Your task to perform on an android device: Play the latest video from the Wall Street Journal Image 0: 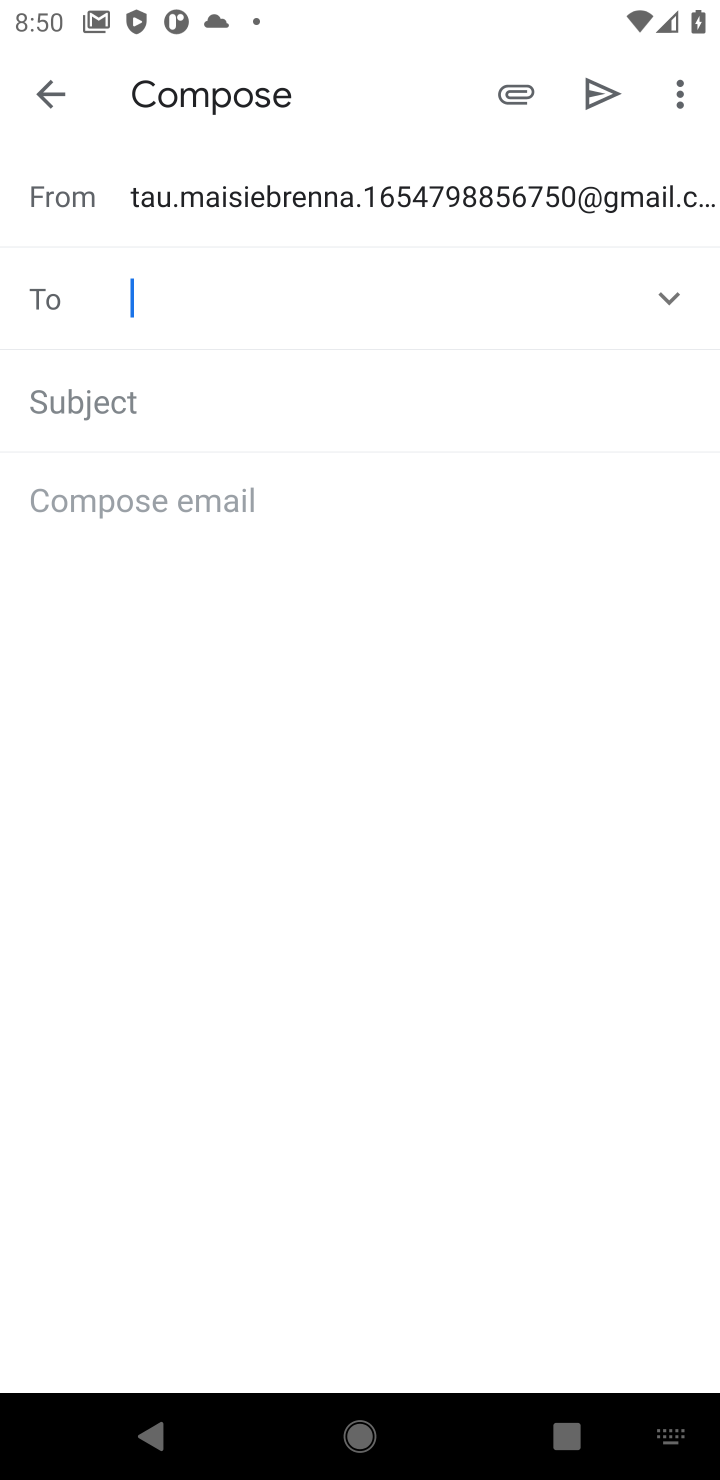
Step 0: press home button
Your task to perform on an android device: Play the latest video from the Wall Street Journal Image 1: 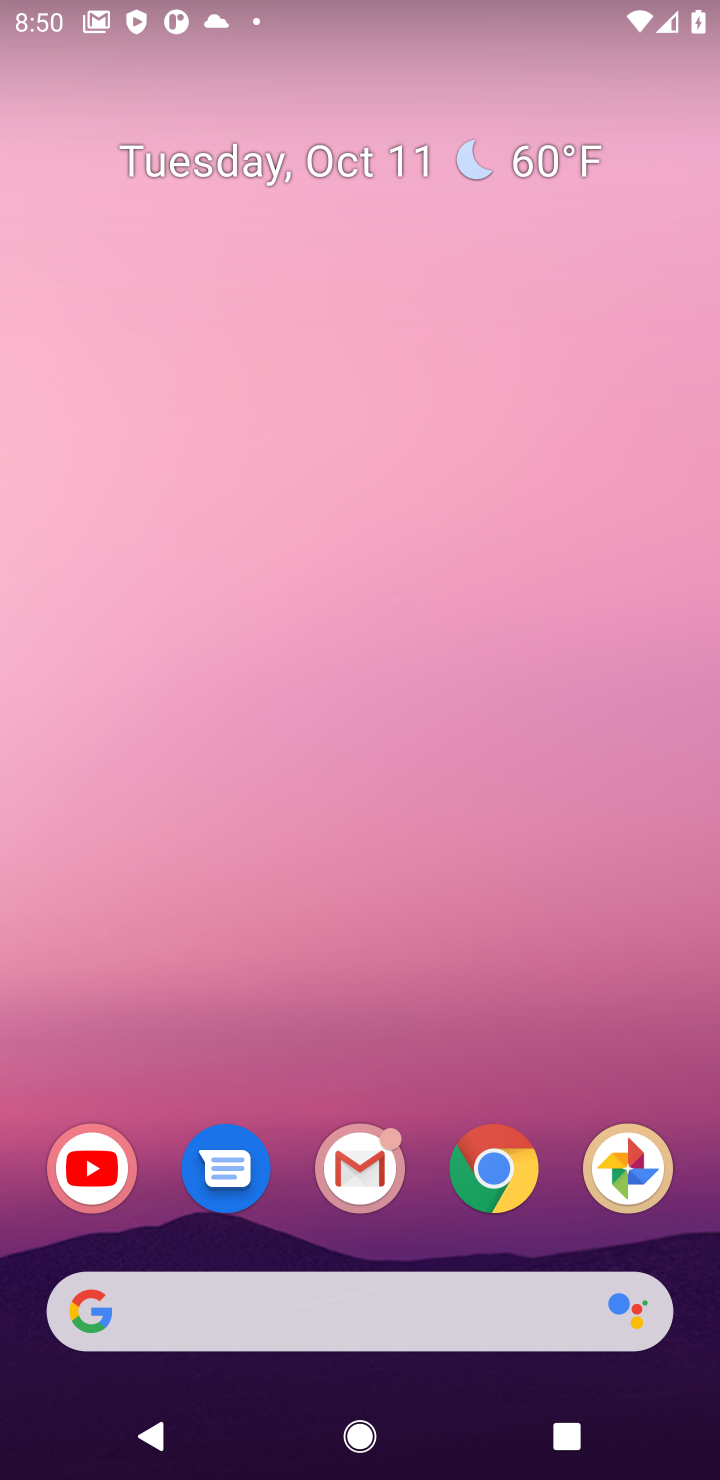
Step 1: click (492, 1174)
Your task to perform on an android device: Play the latest video from the Wall Street Journal Image 2: 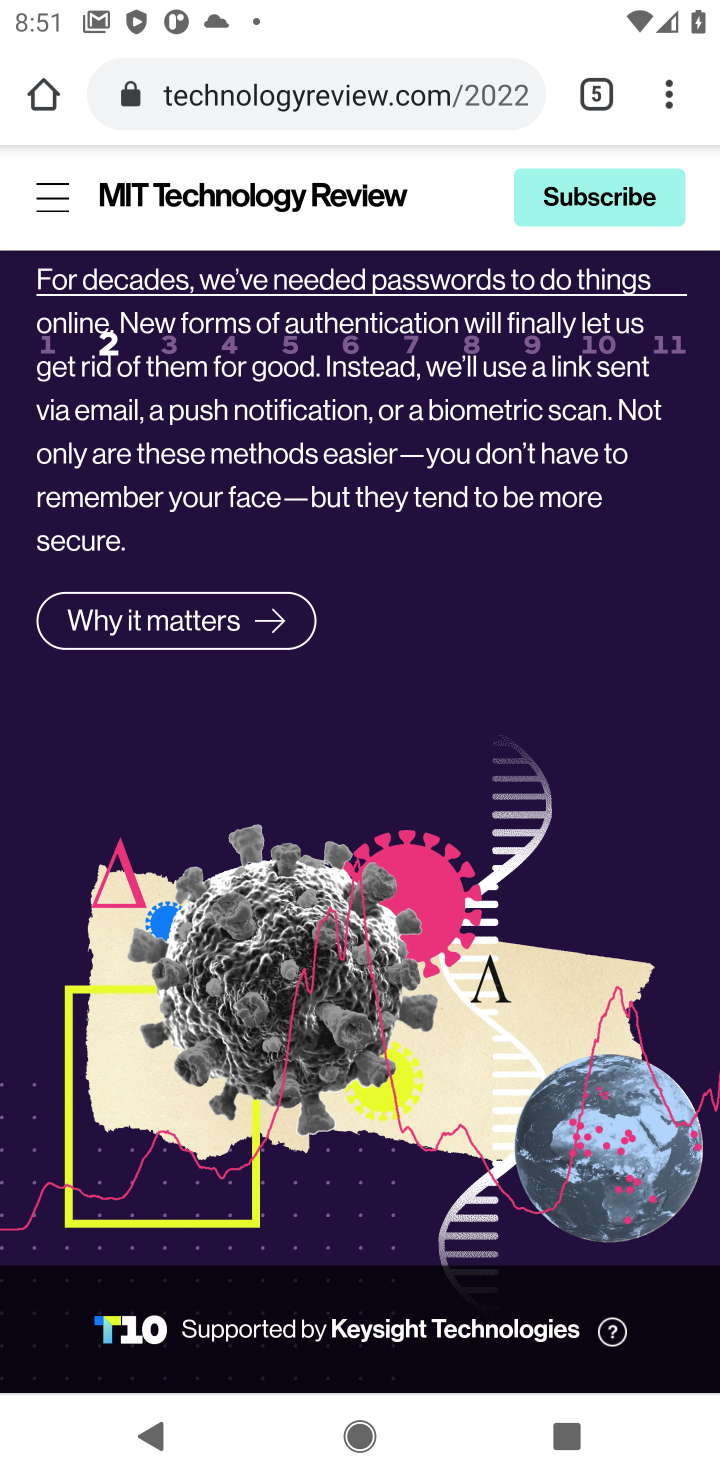
Step 2: click (467, 96)
Your task to perform on an android device: Play the latest video from the Wall Street Journal Image 3: 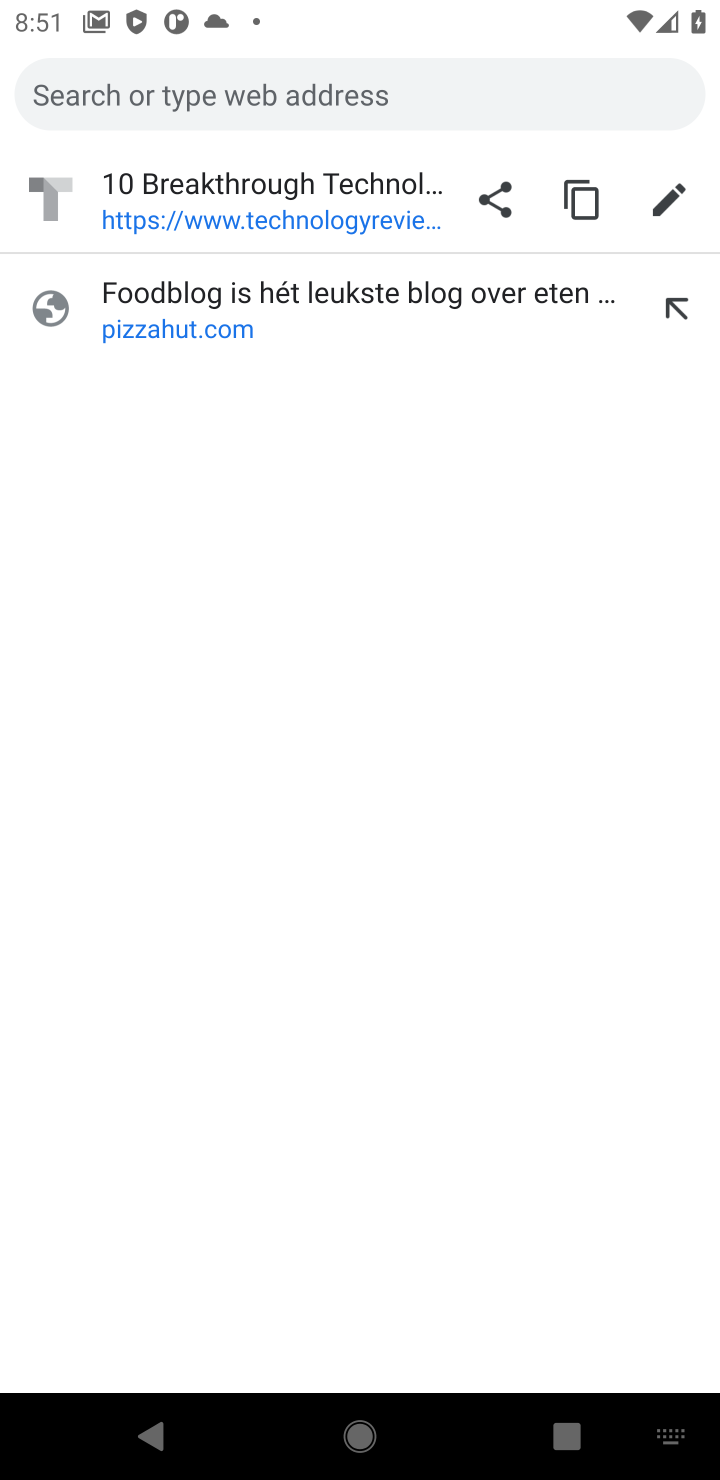
Step 3: type "wallstreet journal"
Your task to perform on an android device: Play the latest video from the Wall Street Journal Image 4: 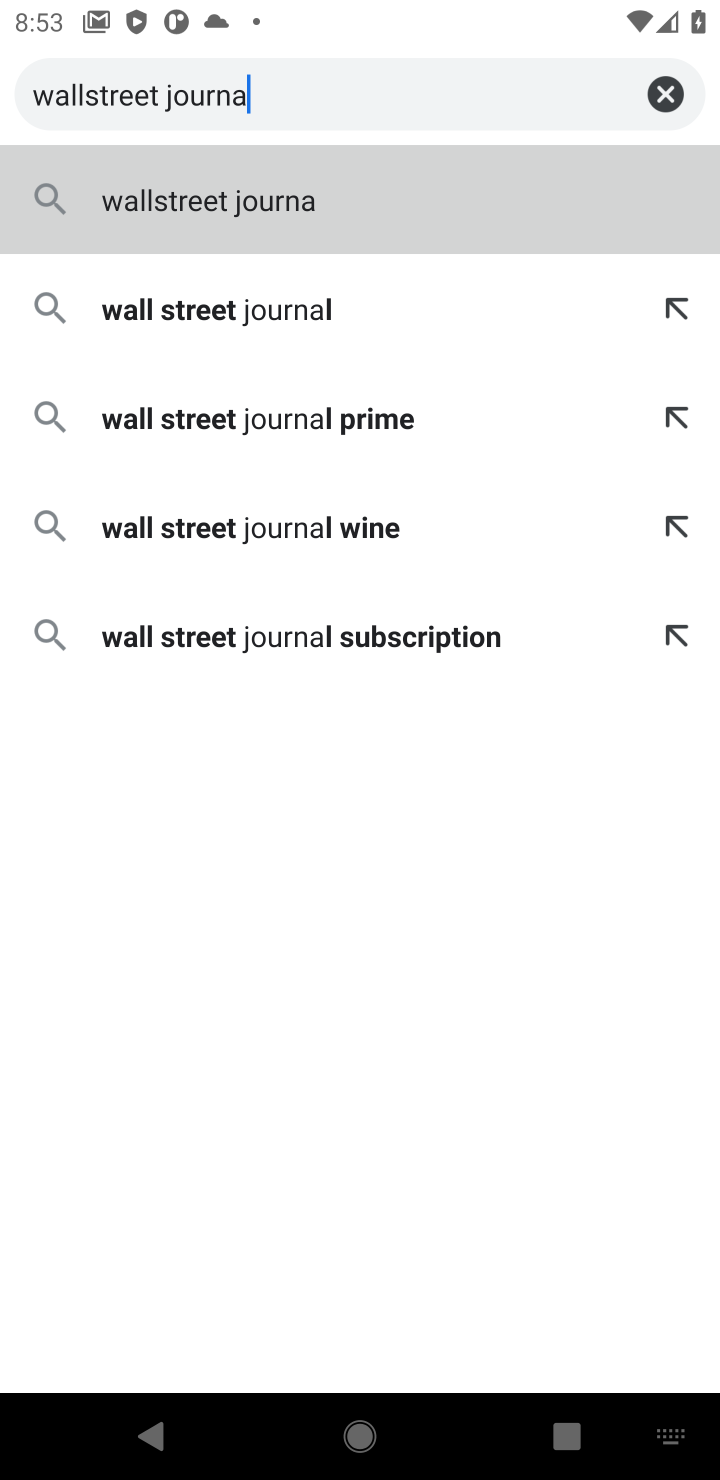
Step 4: click (261, 301)
Your task to perform on an android device: Play the latest video from the Wall Street Journal Image 5: 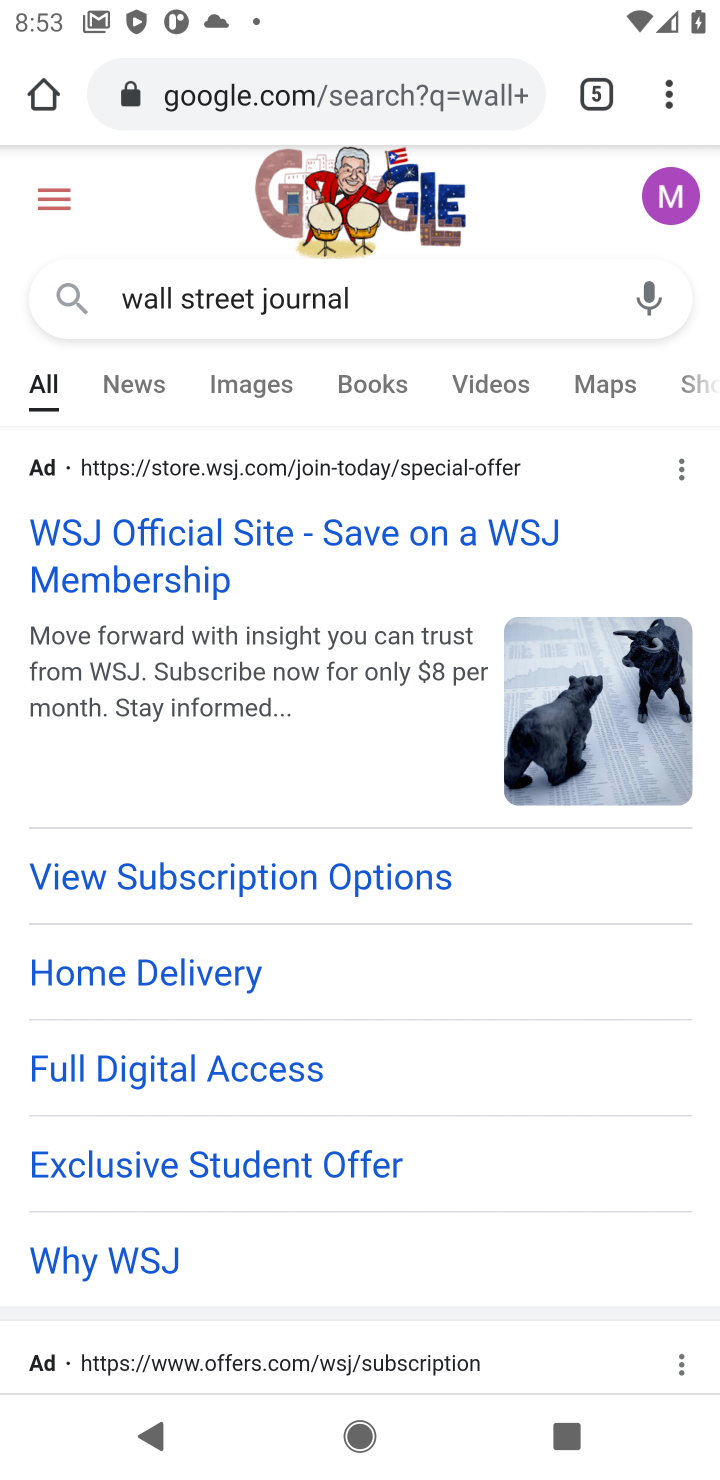
Step 5: drag from (299, 930) to (325, 314)
Your task to perform on an android device: Play the latest video from the Wall Street Journal Image 6: 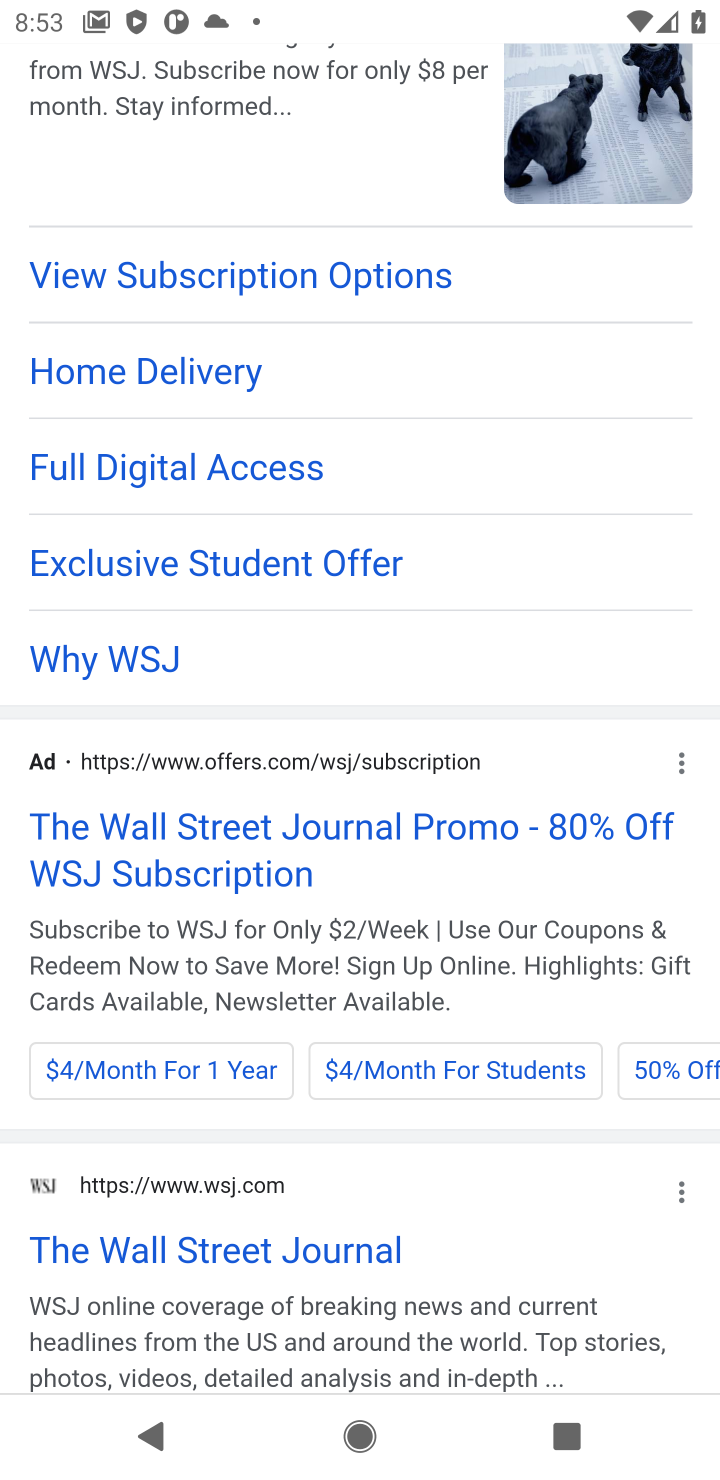
Step 6: click (237, 820)
Your task to perform on an android device: Play the latest video from the Wall Street Journal Image 7: 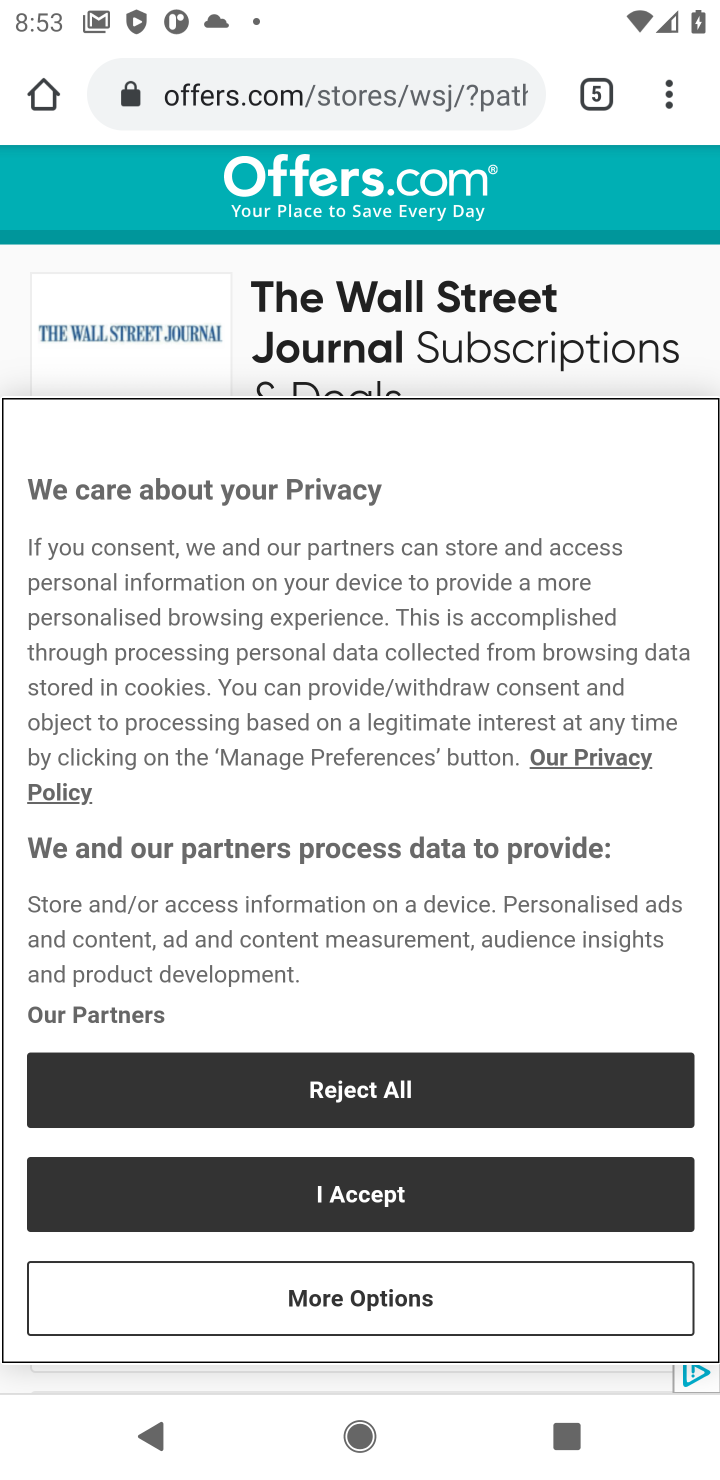
Step 7: click (396, 292)
Your task to perform on an android device: Play the latest video from the Wall Street Journal Image 8: 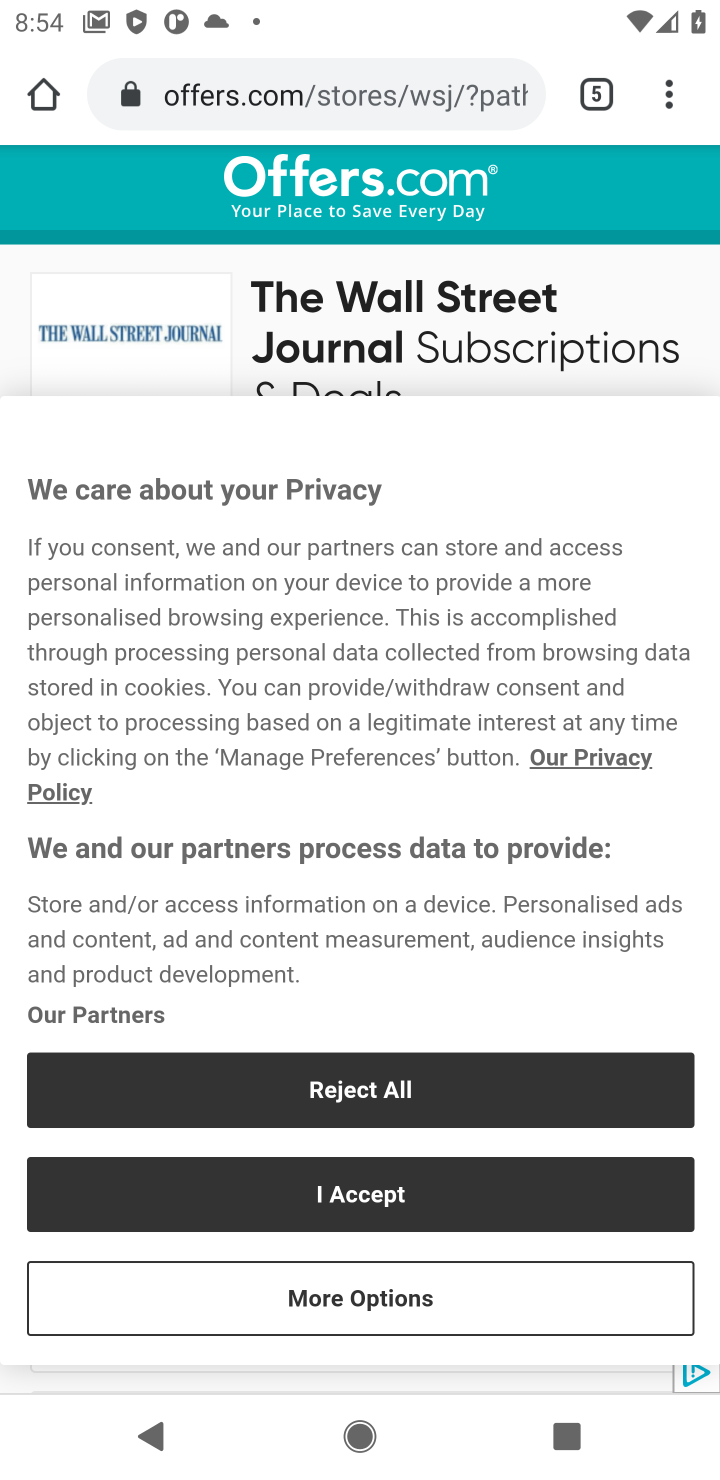
Step 8: drag from (301, 927) to (424, 396)
Your task to perform on an android device: Play the latest video from the Wall Street Journal Image 9: 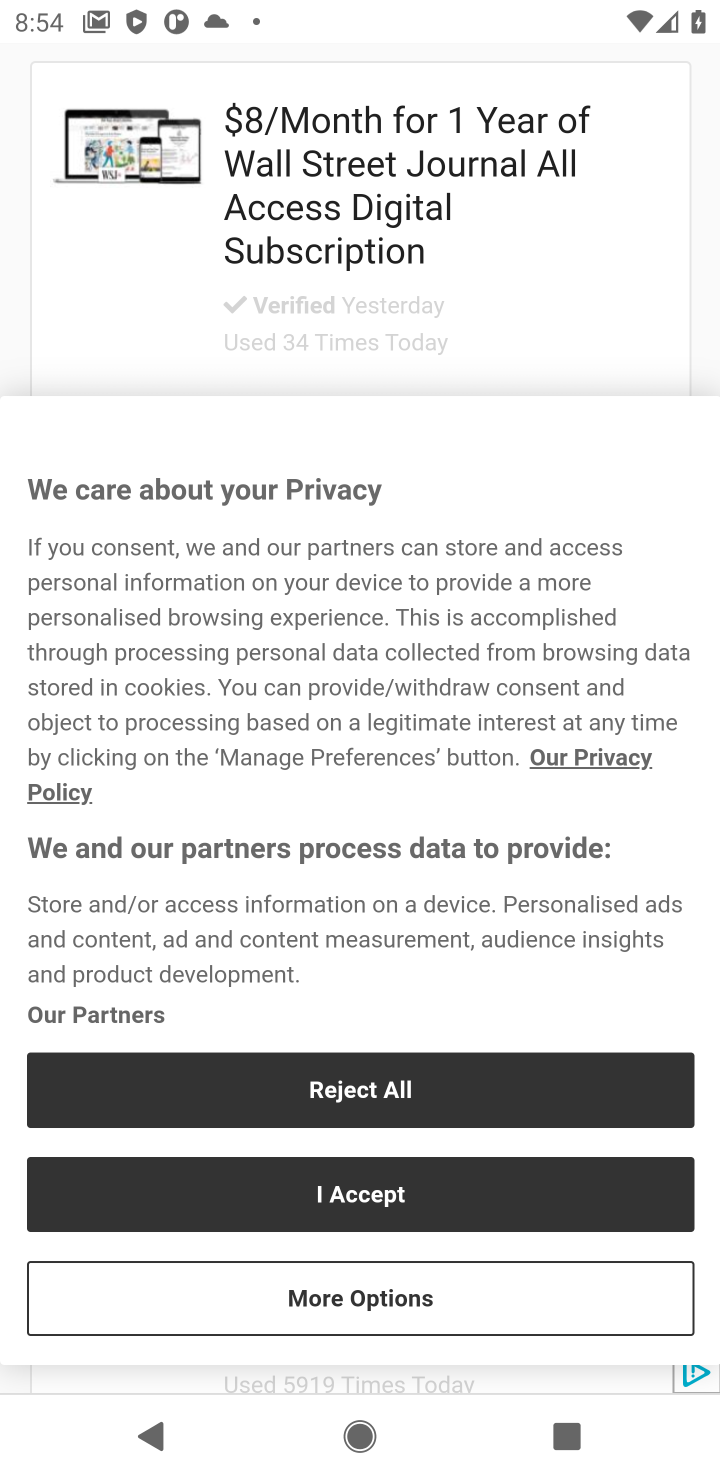
Step 9: drag from (414, 807) to (504, 425)
Your task to perform on an android device: Play the latest video from the Wall Street Journal Image 10: 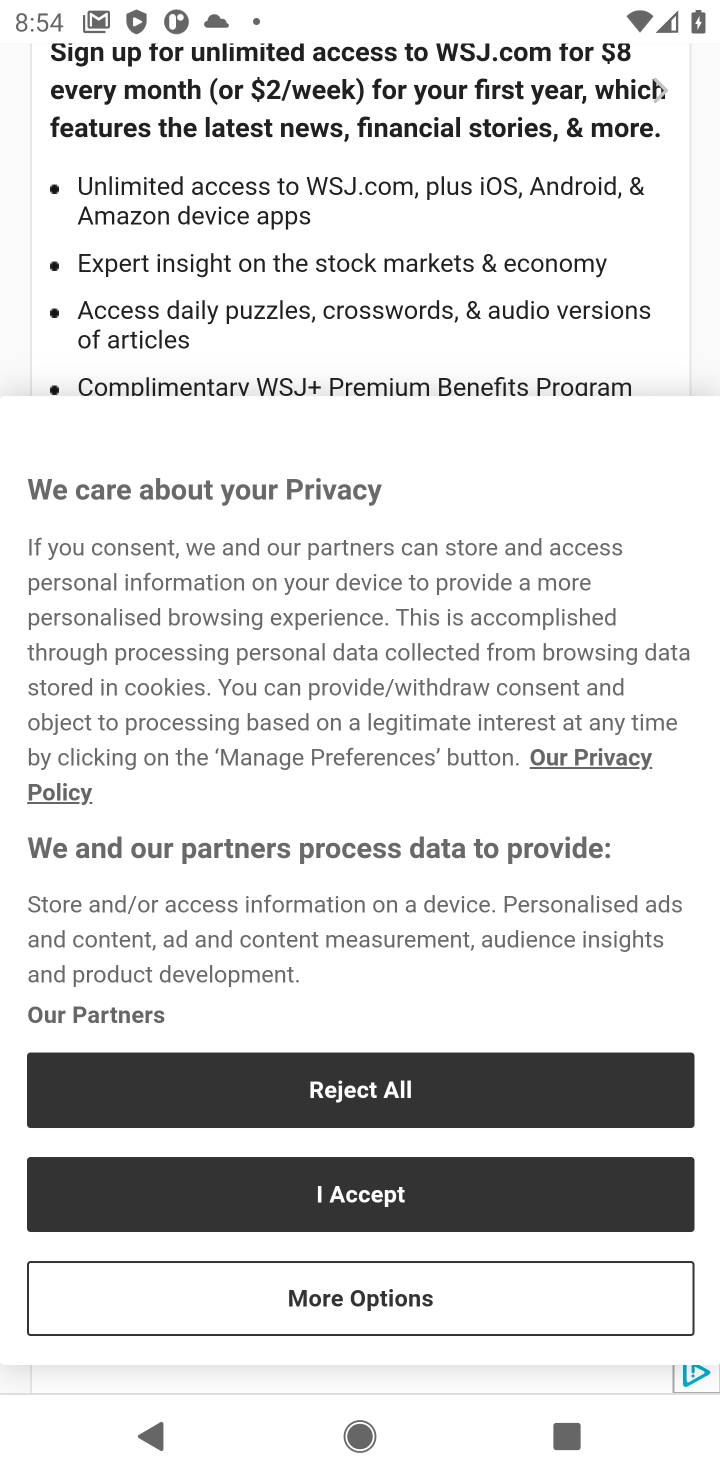
Step 10: click (334, 1219)
Your task to perform on an android device: Play the latest video from the Wall Street Journal Image 11: 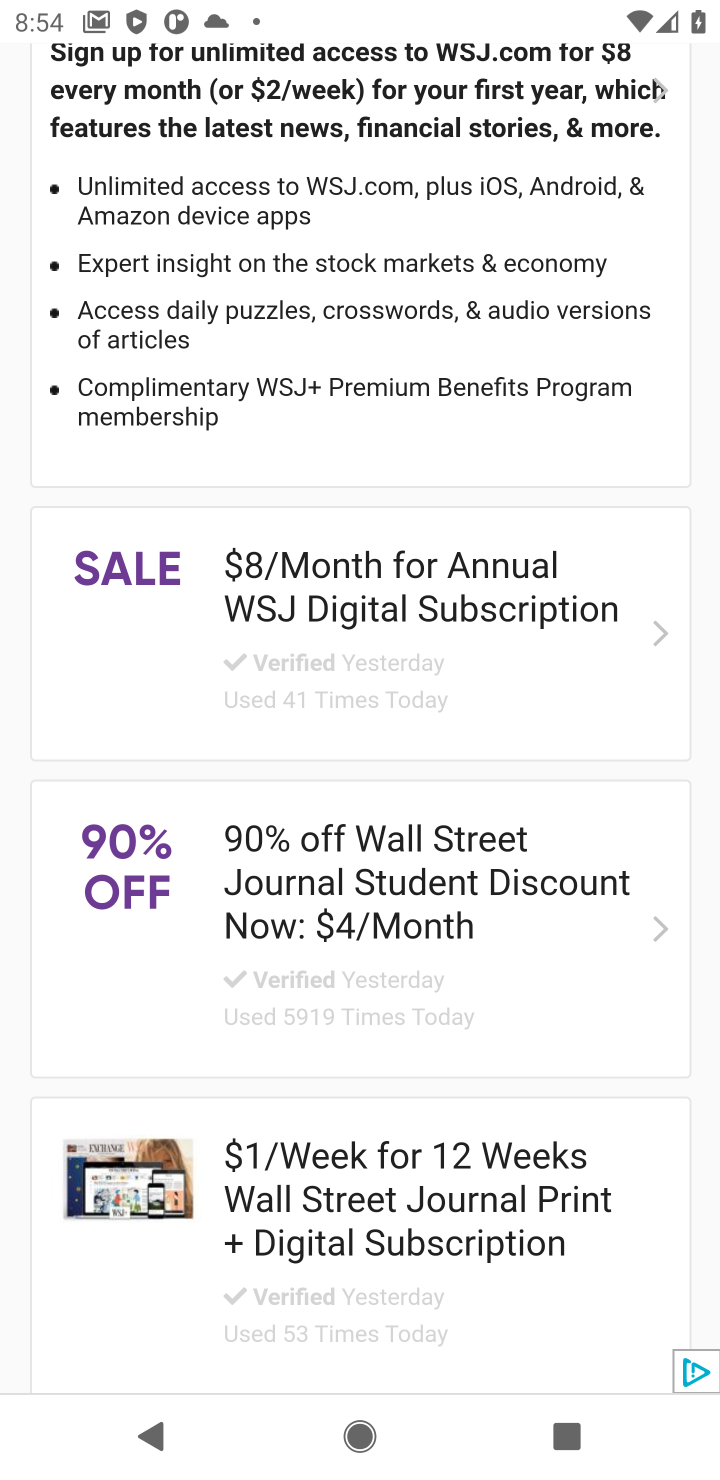
Step 11: drag from (351, 1068) to (371, 234)
Your task to perform on an android device: Play the latest video from the Wall Street Journal Image 12: 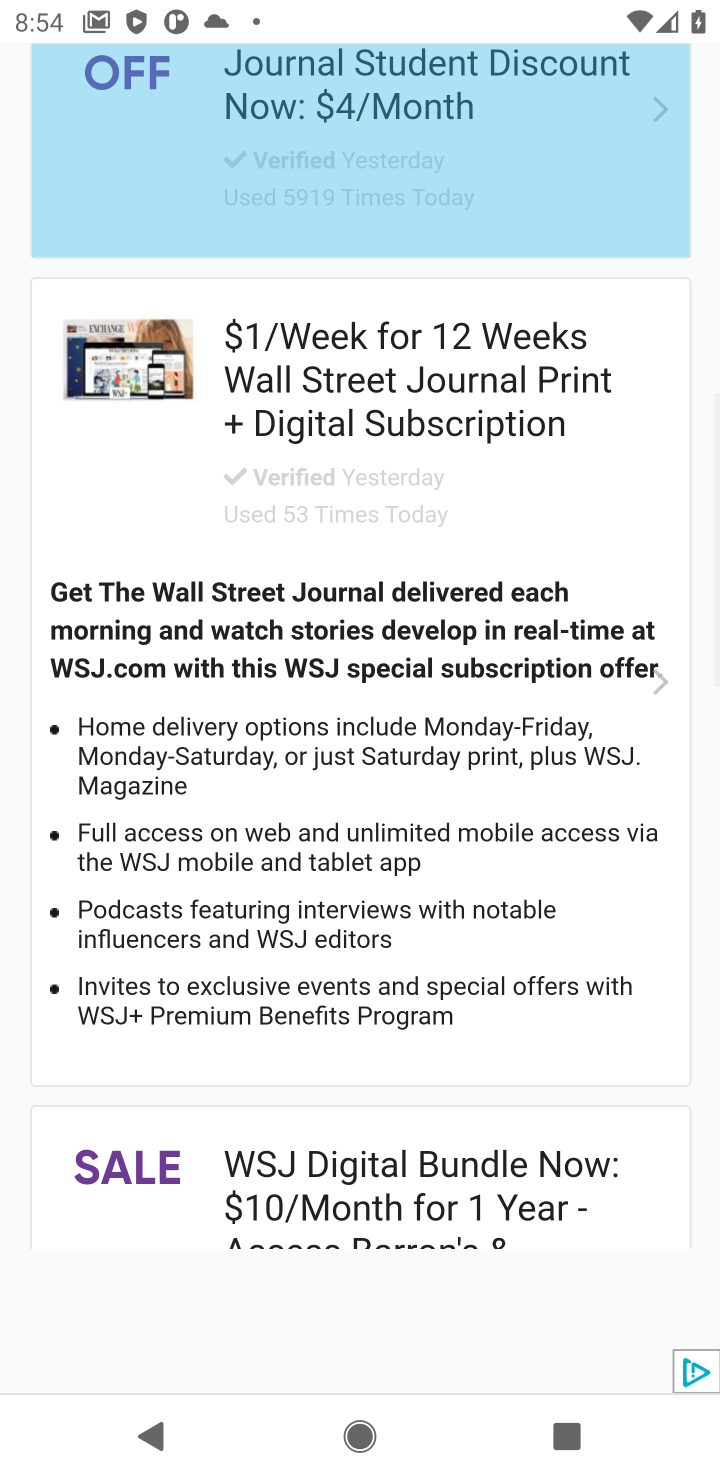
Step 12: drag from (378, 679) to (385, 1398)
Your task to perform on an android device: Play the latest video from the Wall Street Journal Image 13: 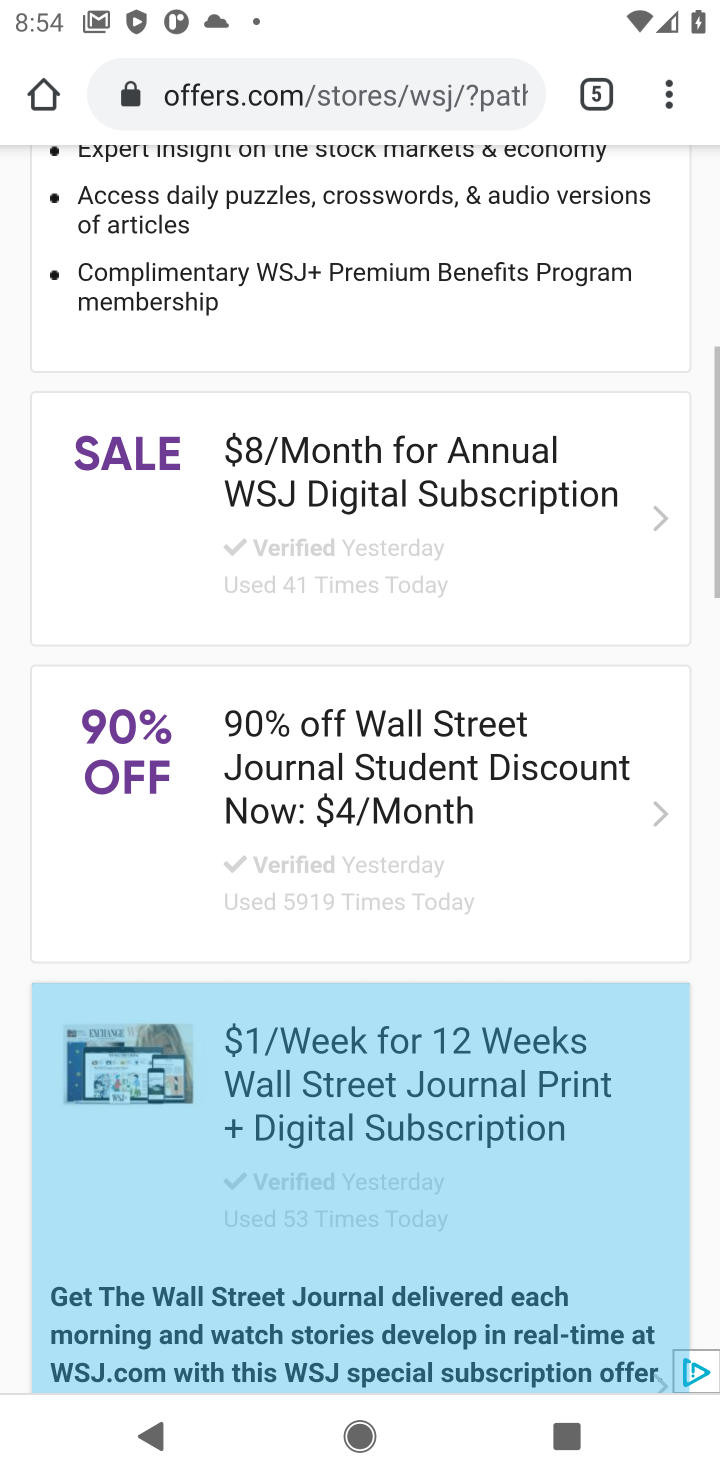
Step 13: drag from (419, 998) to (406, 1397)
Your task to perform on an android device: Play the latest video from the Wall Street Journal Image 14: 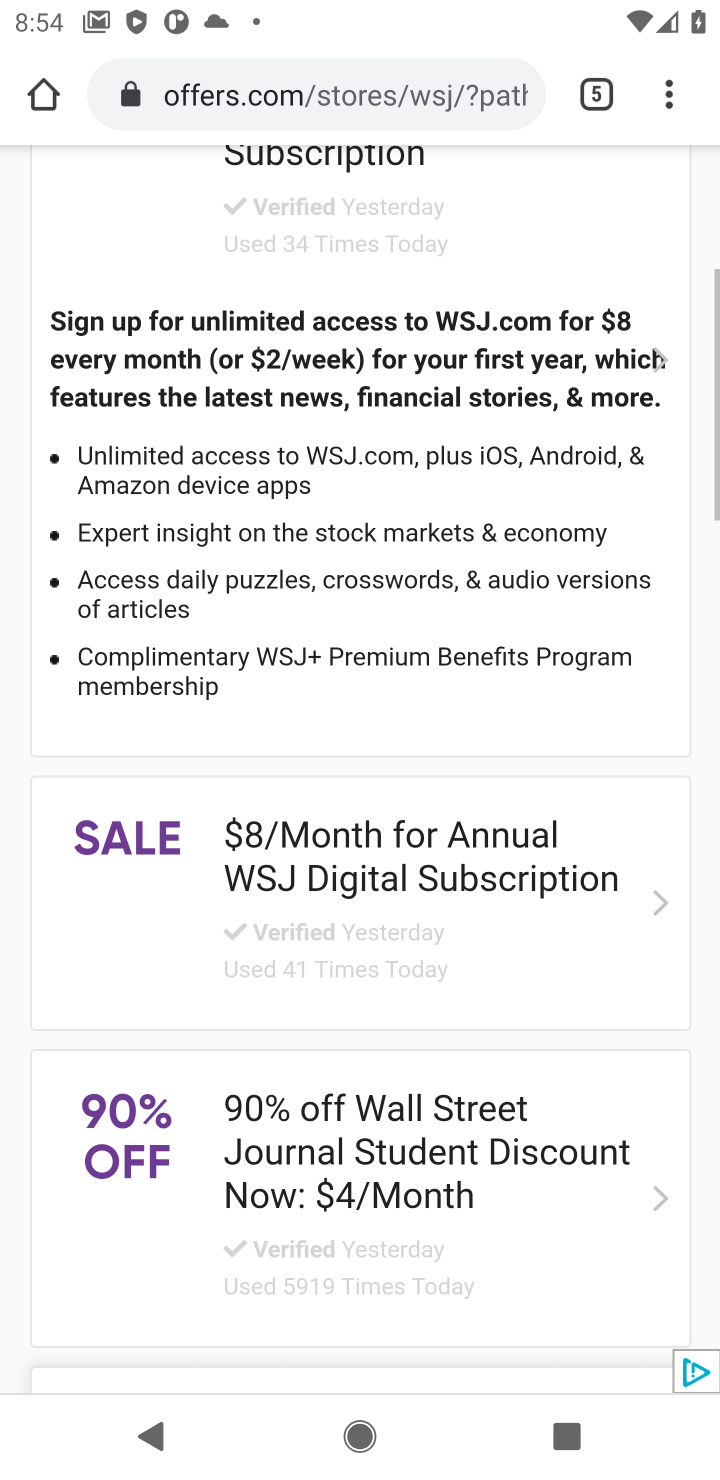
Step 14: drag from (273, 607) to (379, 1464)
Your task to perform on an android device: Play the latest video from the Wall Street Journal Image 15: 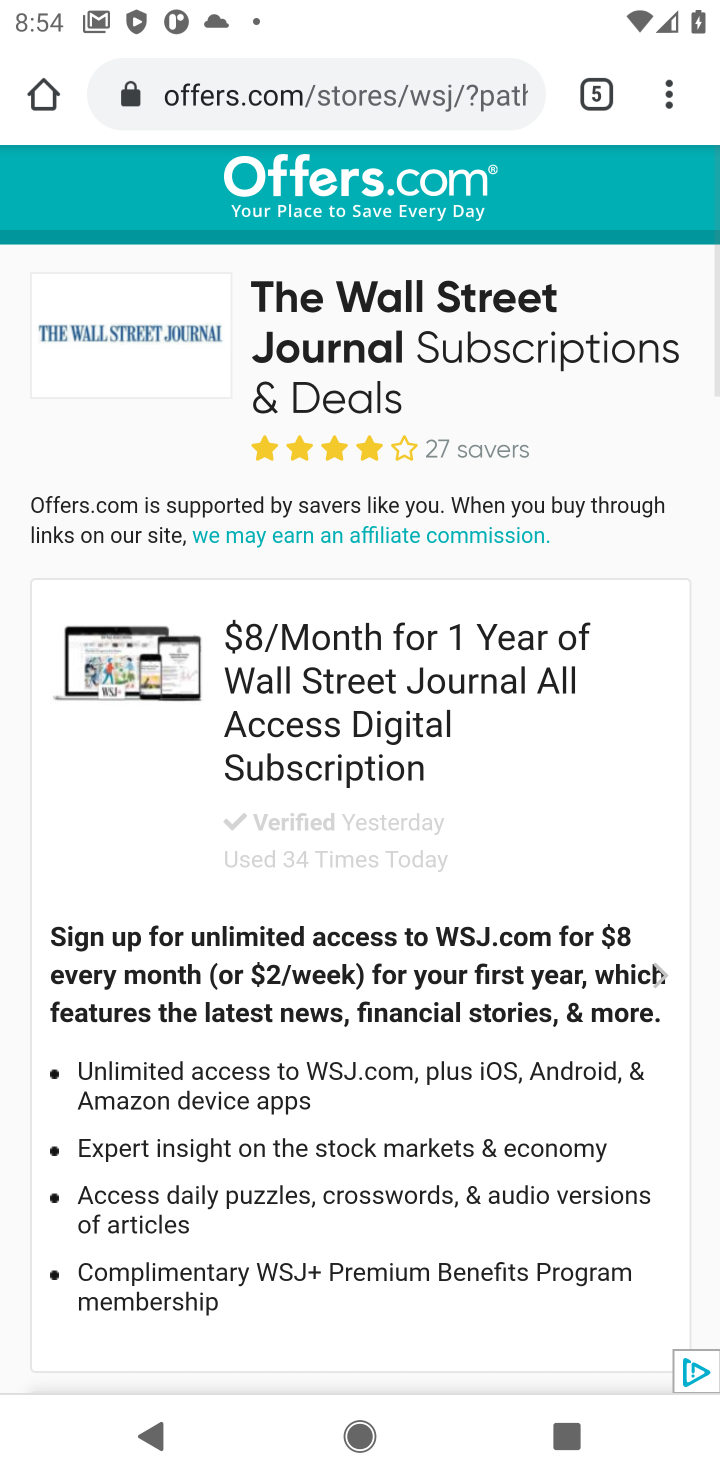
Step 15: drag from (341, 767) to (341, 1169)
Your task to perform on an android device: Play the latest video from the Wall Street Journal Image 16: 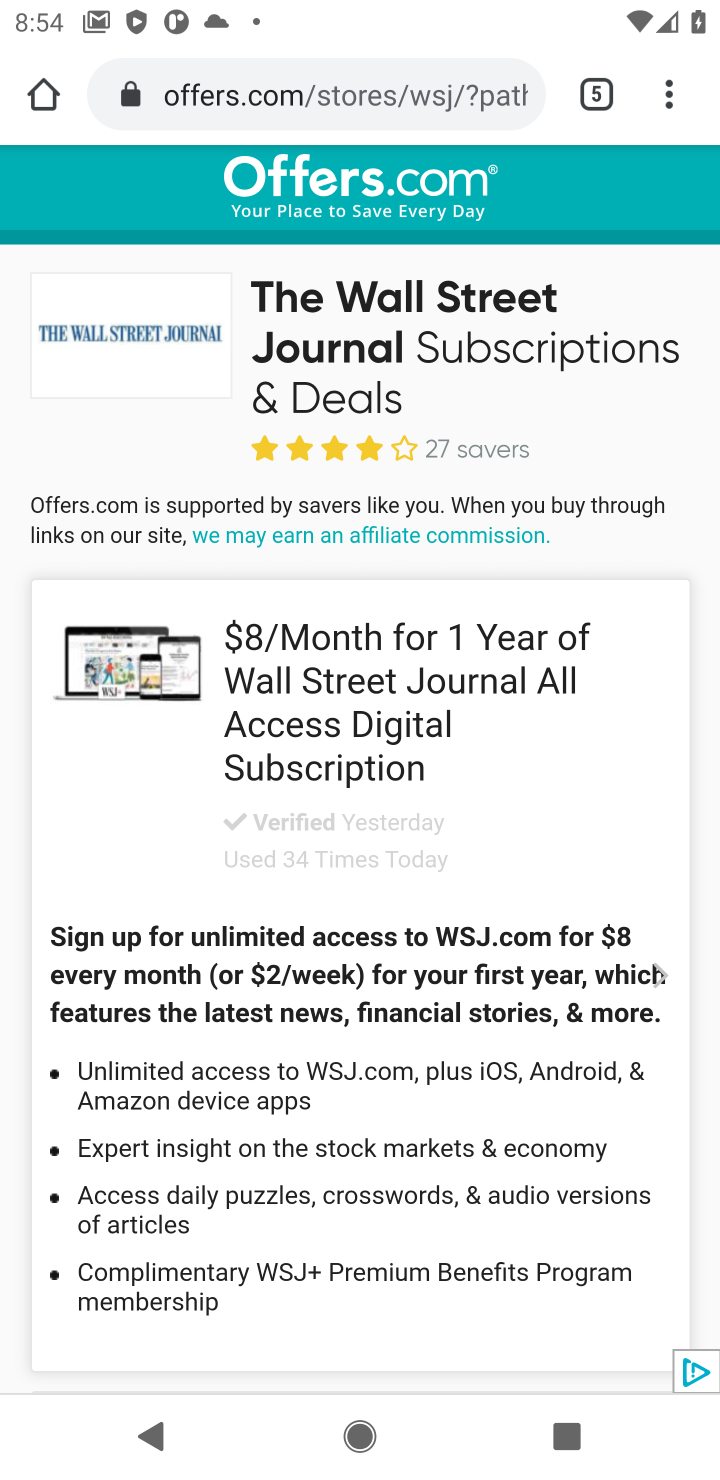
Step 16: drag from (212, 869) to (274, 351)
Your task to perform on an android device: Play the latest video from the Wall Street Journal Image 17: 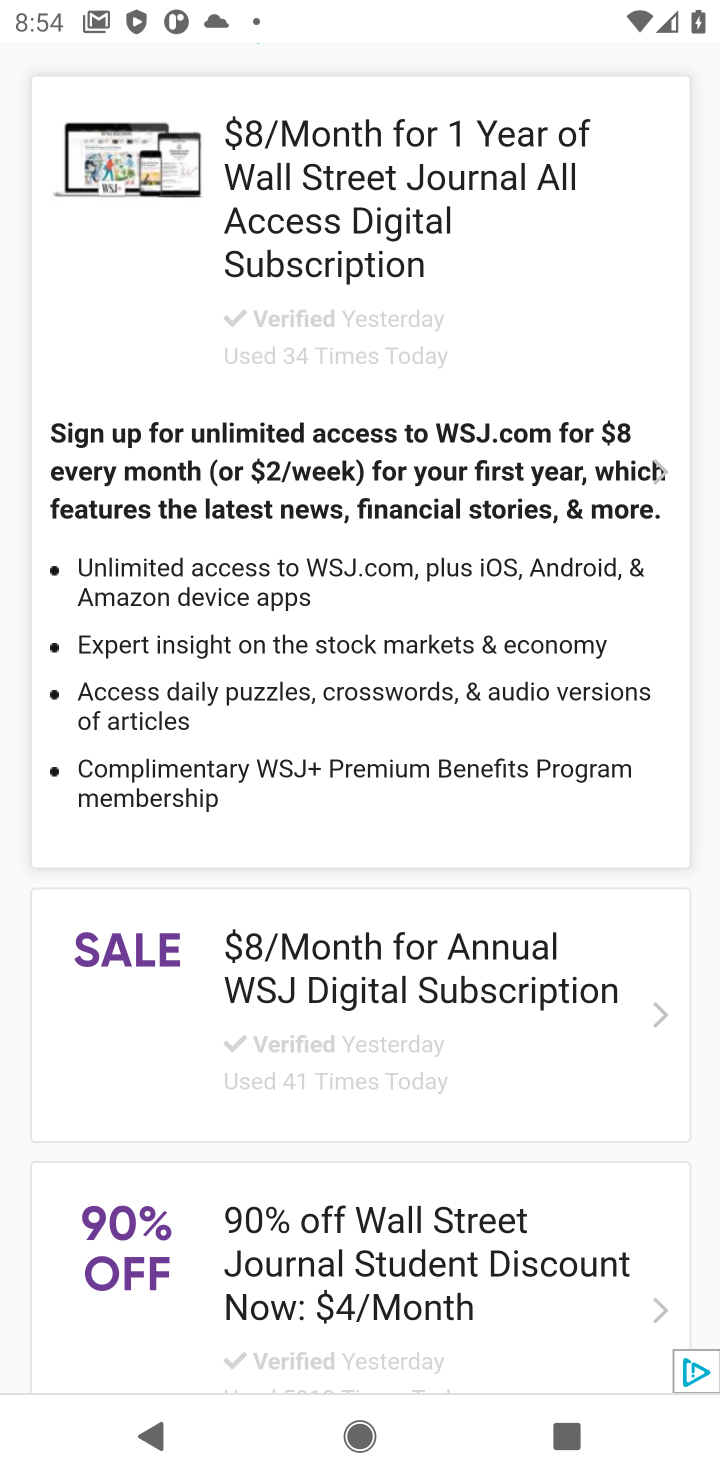
Step 17: drag from (333, 967) to (333, 533)
Your task to perform on an android device: Play the latest video from the Wall Street Journal Image 18: 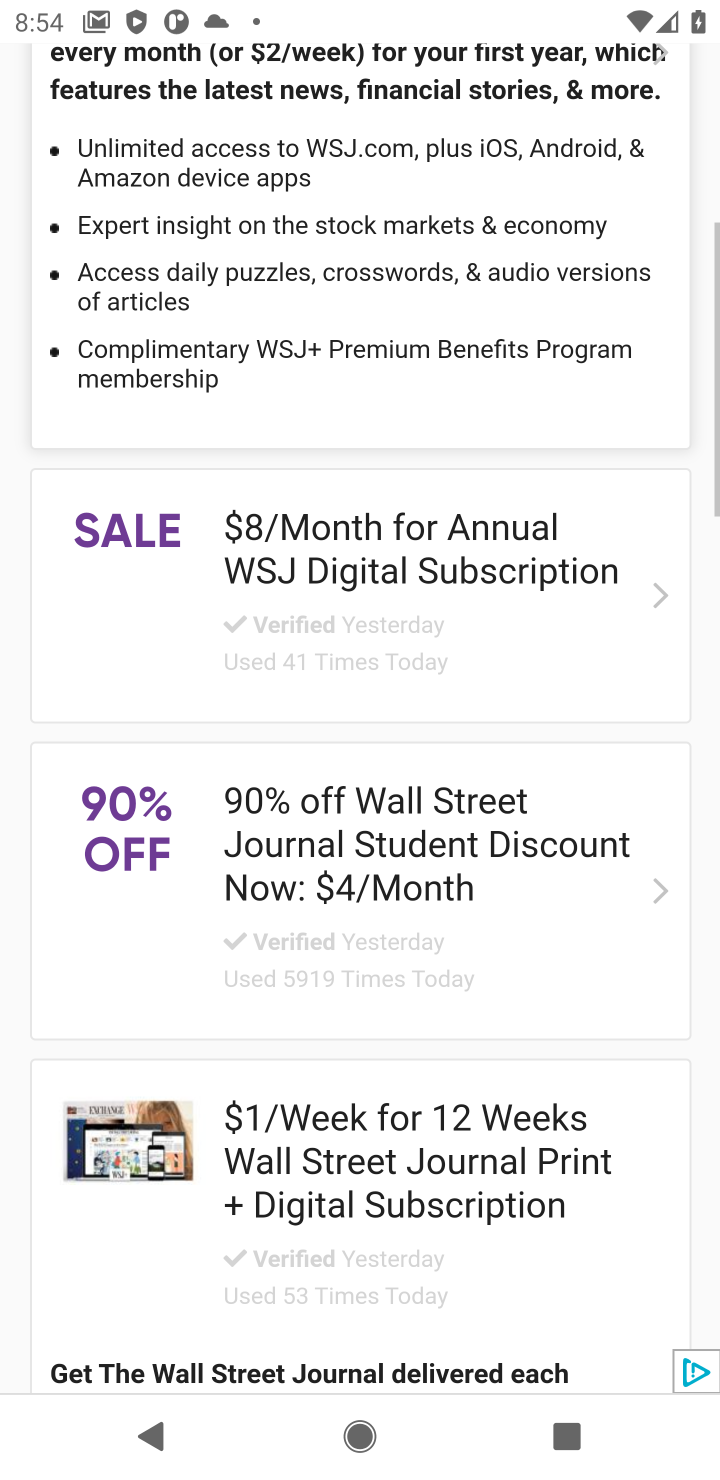
Step 18: drag from (336, 1271) to (361, 795)
Your task to perform on an android device: Play the latest video from the Wall Street Journal Image 19: 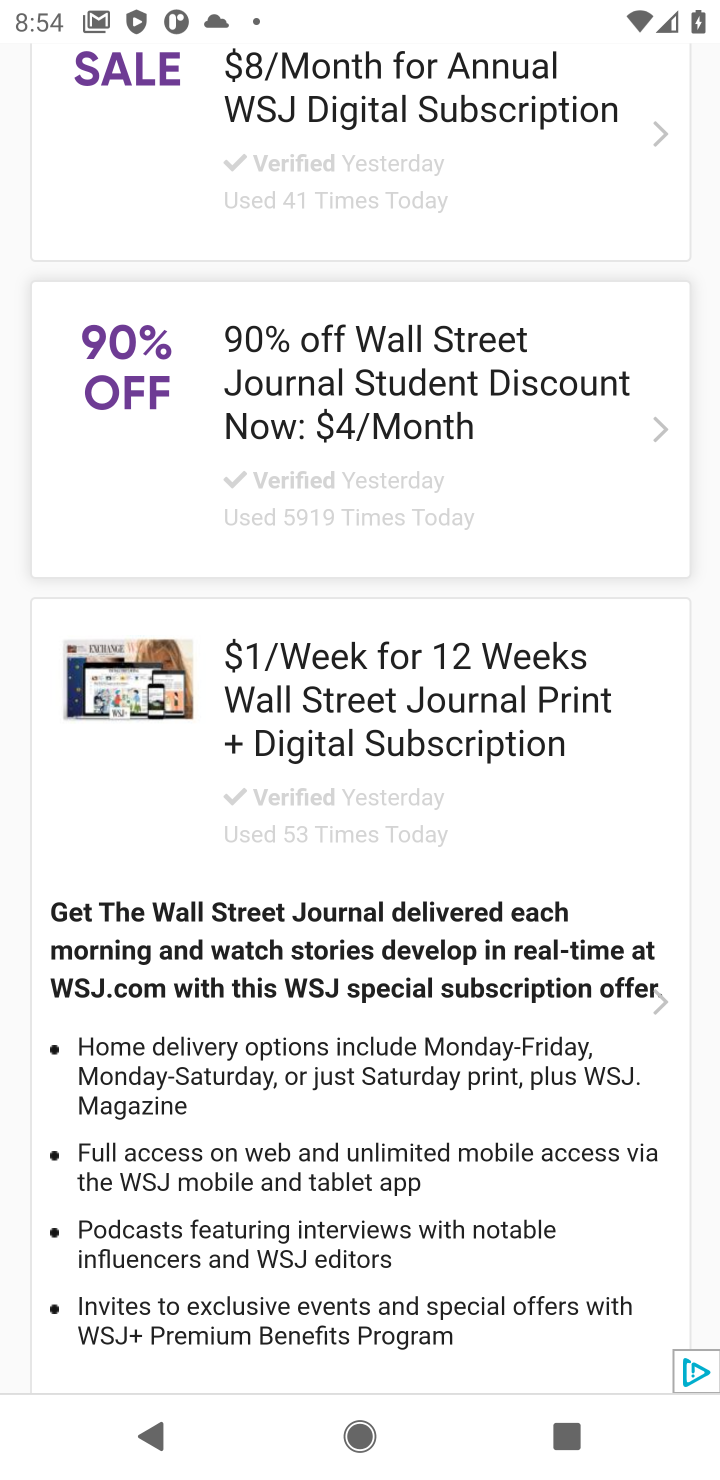
Step 19: drag from (440, 876) to (471, 627)
Your task to perform on an android device: Play the latest video from the Wall Street Journal Image 20: 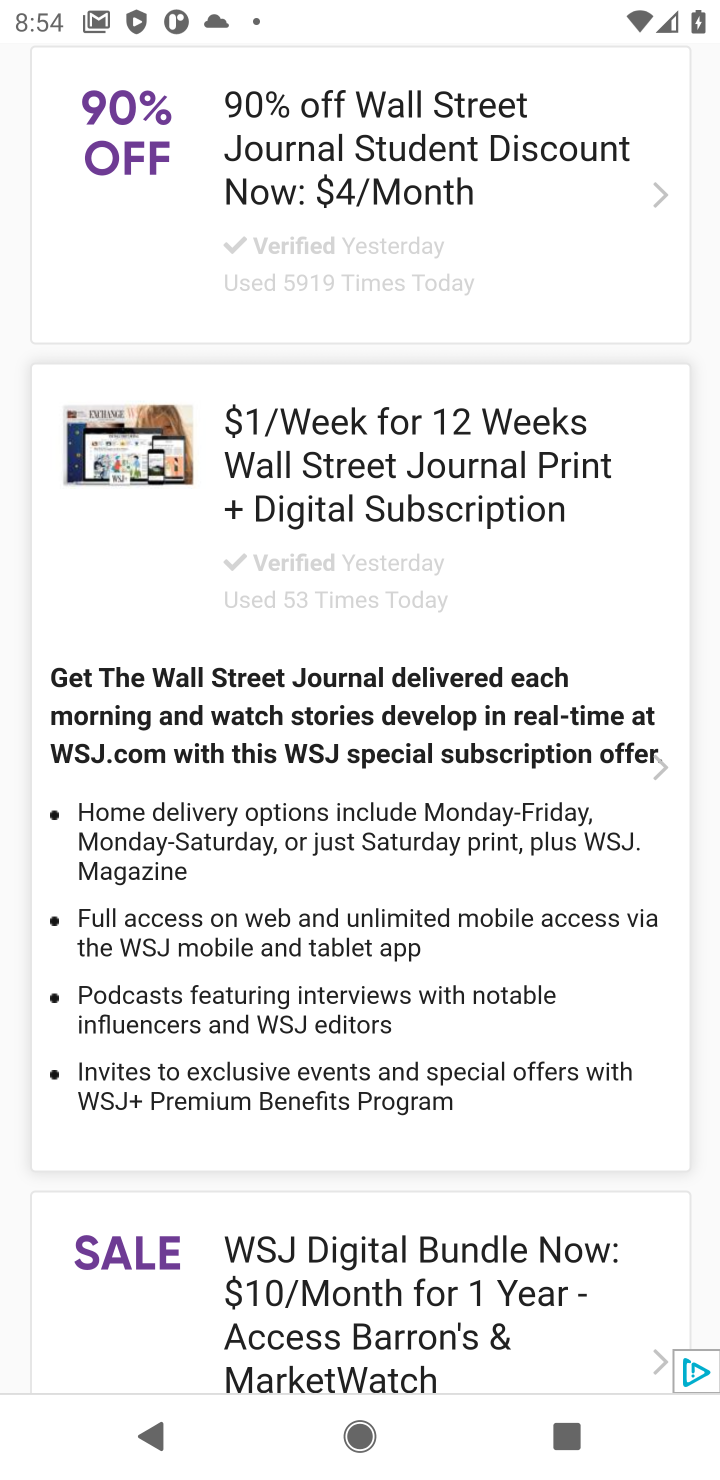
Step 20: click (489, 453)
Your task to perform on an android device: Play the latest video from the Wall Street Journal Image 21: 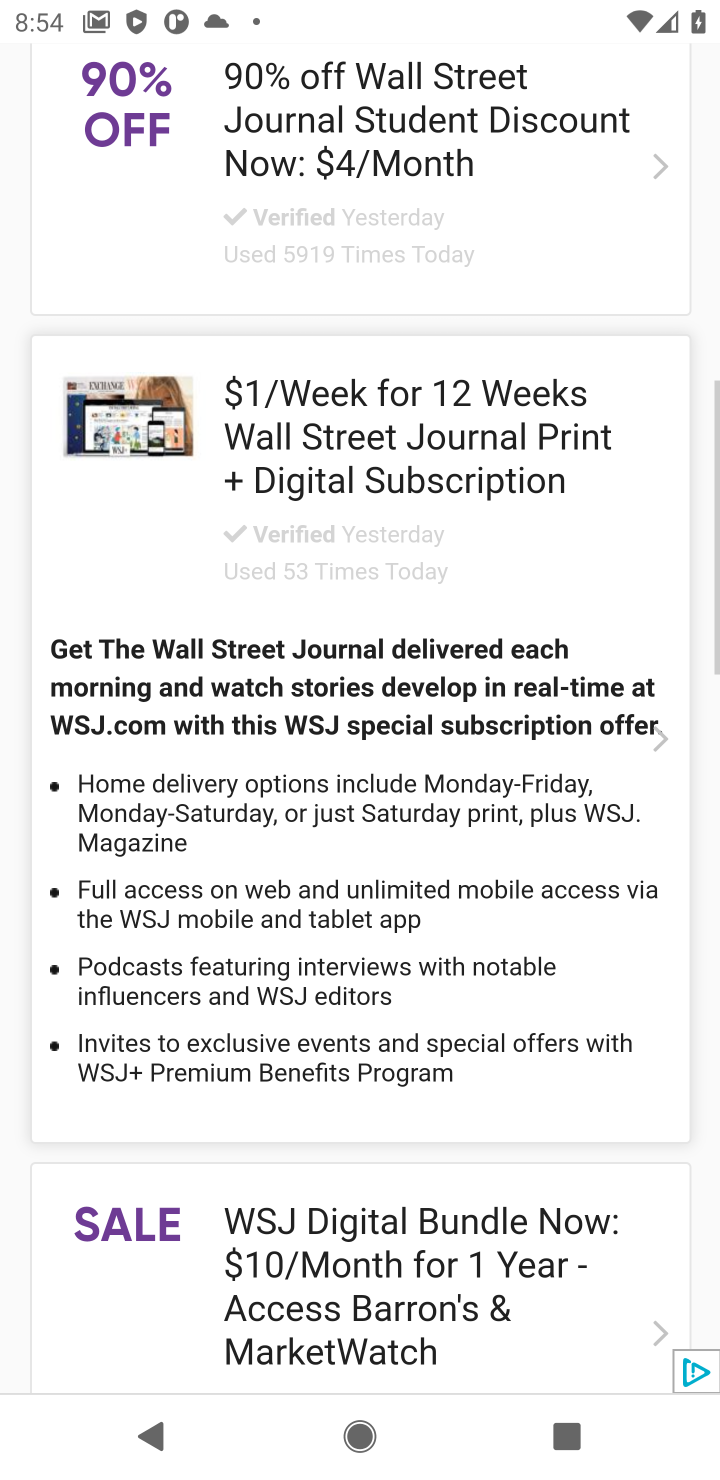
Step 21: drag from (417, 1196) to (567, 396)
Your task to perform on an android device: Play the latest video from the Wall Street Journal Image 22: 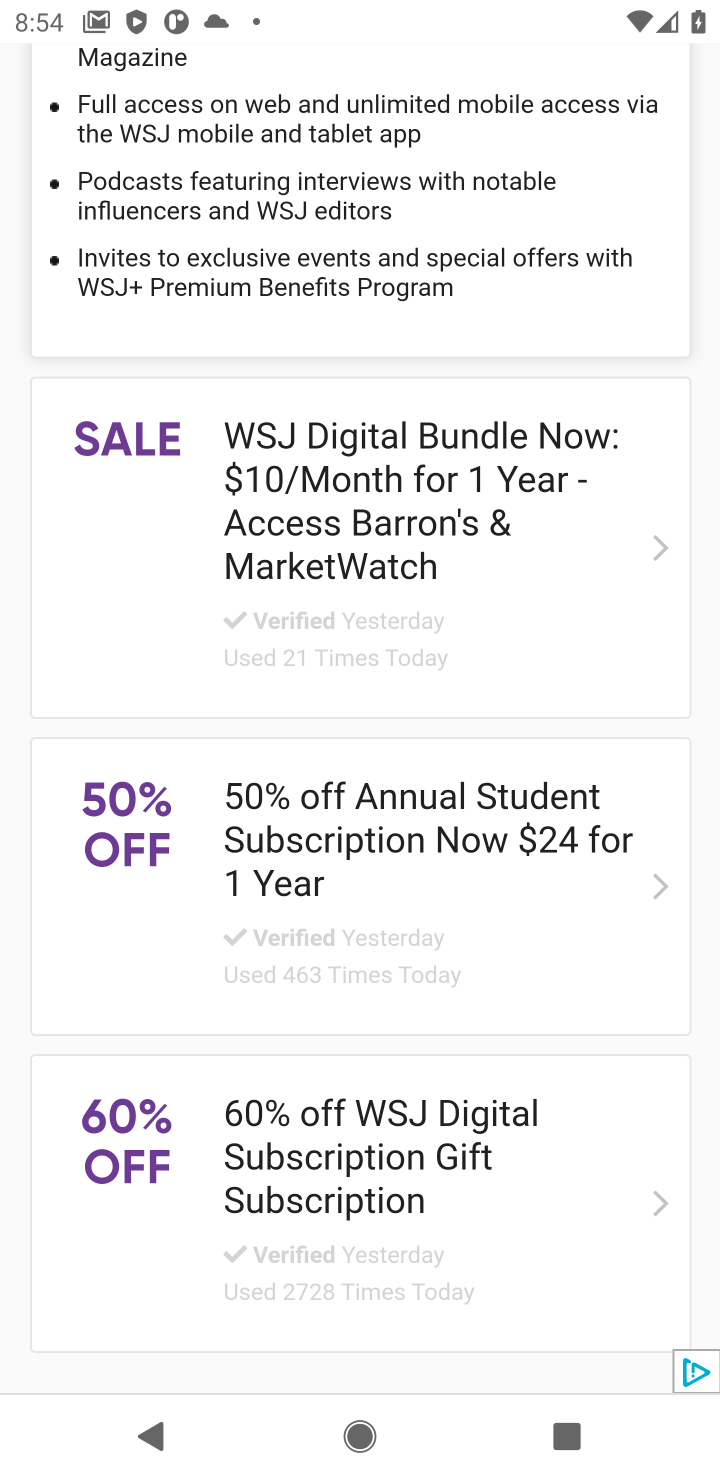
Step 22: click (405, 1100)
Your task to perform on an android device: Play the latest video from the Wall Street Journal Image 23: 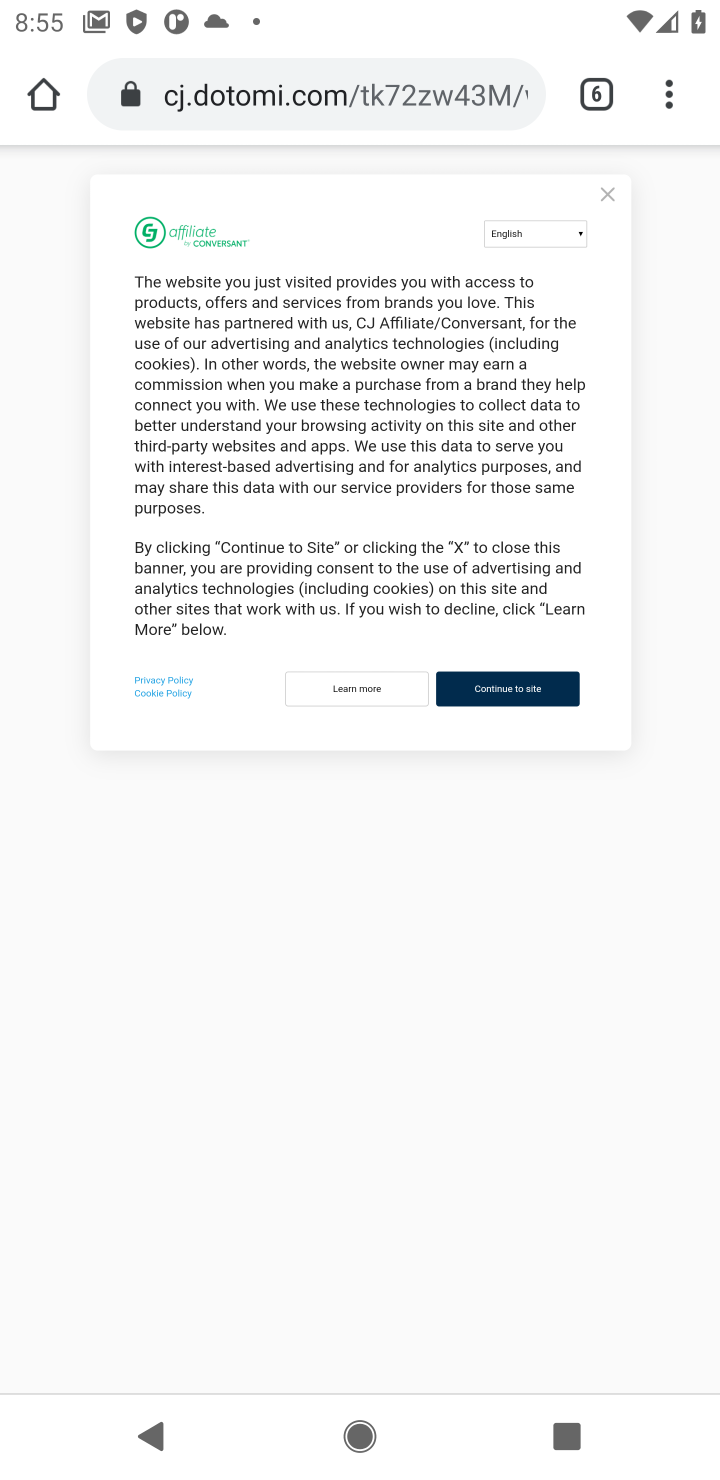
Step 23: task complete